Your task to perform on an android device: turn off improve location accuracy Image 0: 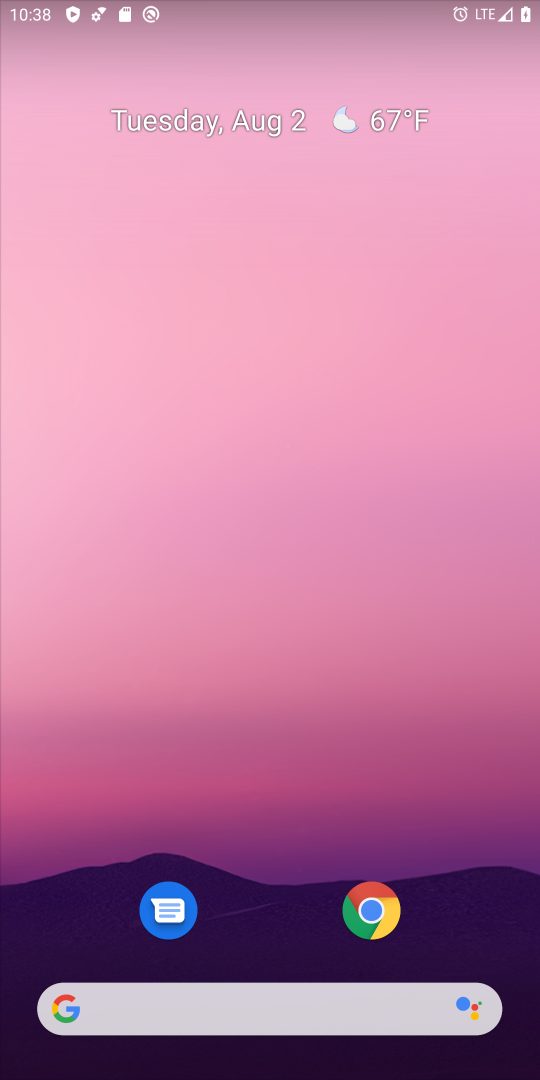
Step 0: drag from (248, 983) to (264, 336)
Your task to perform on an android device: turn off improve location accuracy Image 1: 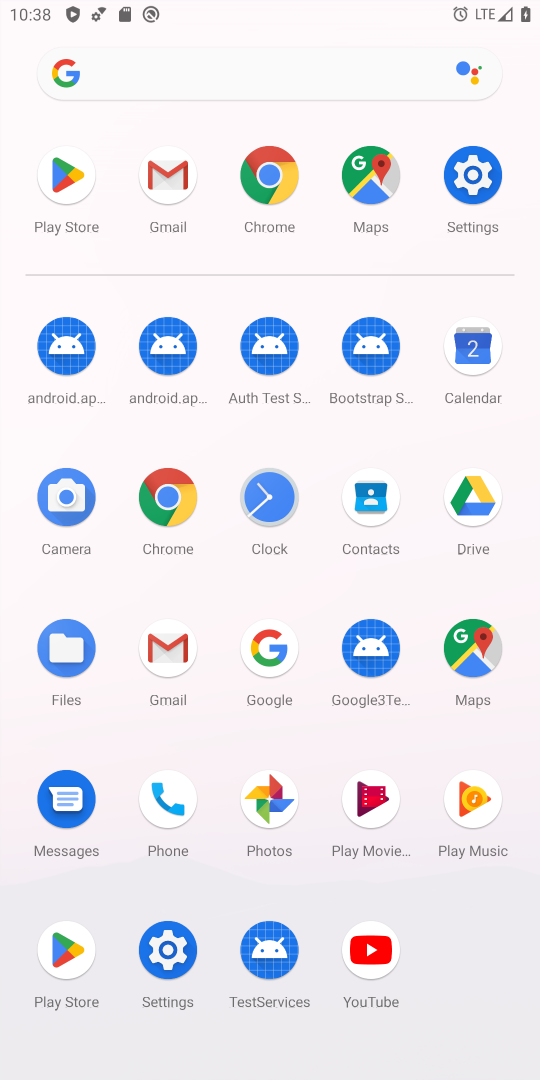
Step 1: click (464, 167)
Your task to perform on an android device: turn off improve location accuracy Image 2: 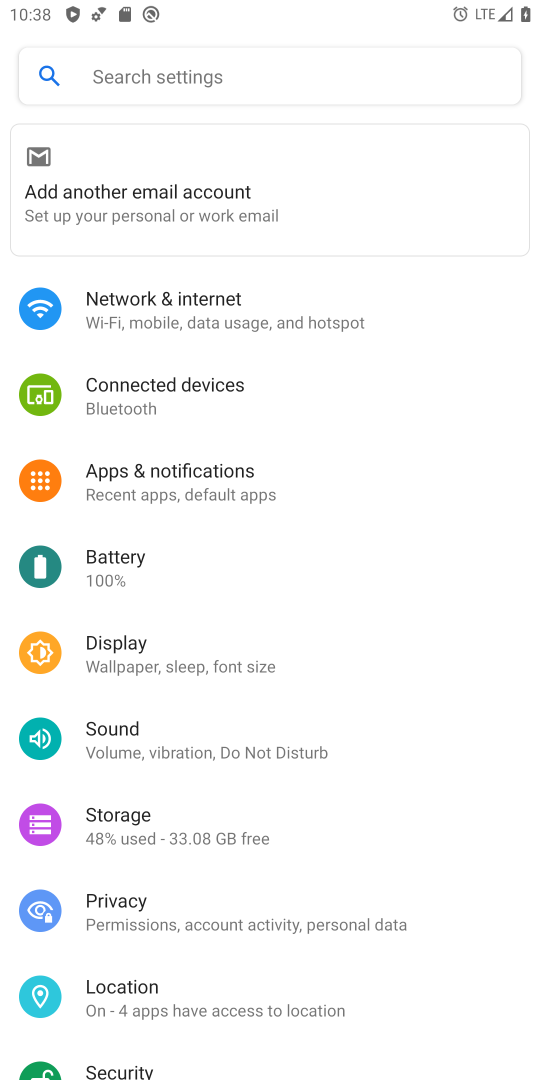
Step 2: click (254, 993)
Your task to perform on an android device: turn off improve location accuracy Image 3: 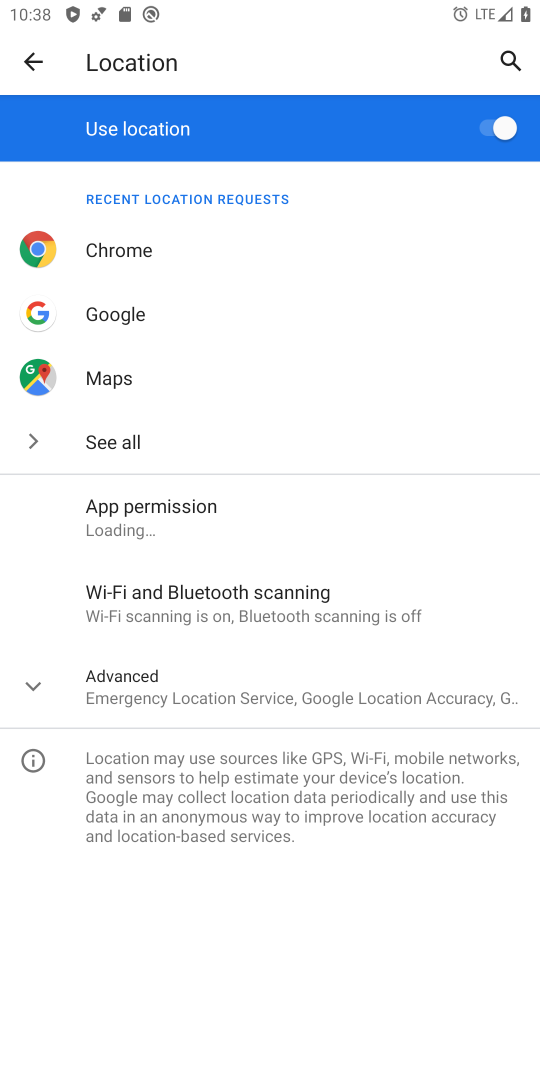
Step 3: click (209, 705)
Your task to perform on an android device: turn off improve location accuracy Image 4: 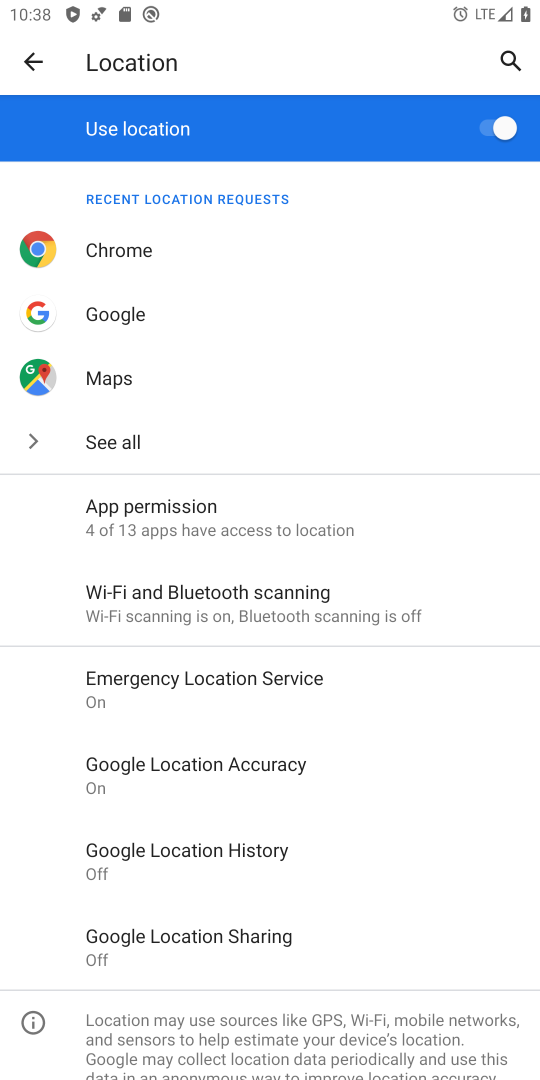
Step 4: click (269, 776)
Your task to perform on an android device: turn off improve location accuracy Image 5: 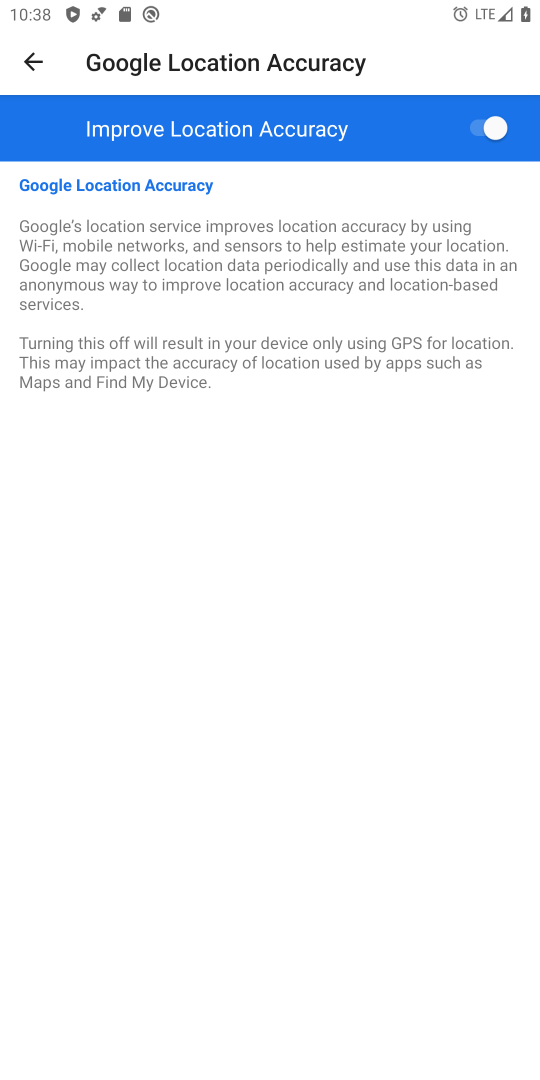
Step 5: click (485, 133)
Your task to perform on an android device: turn off improve location accuracy Image 6: 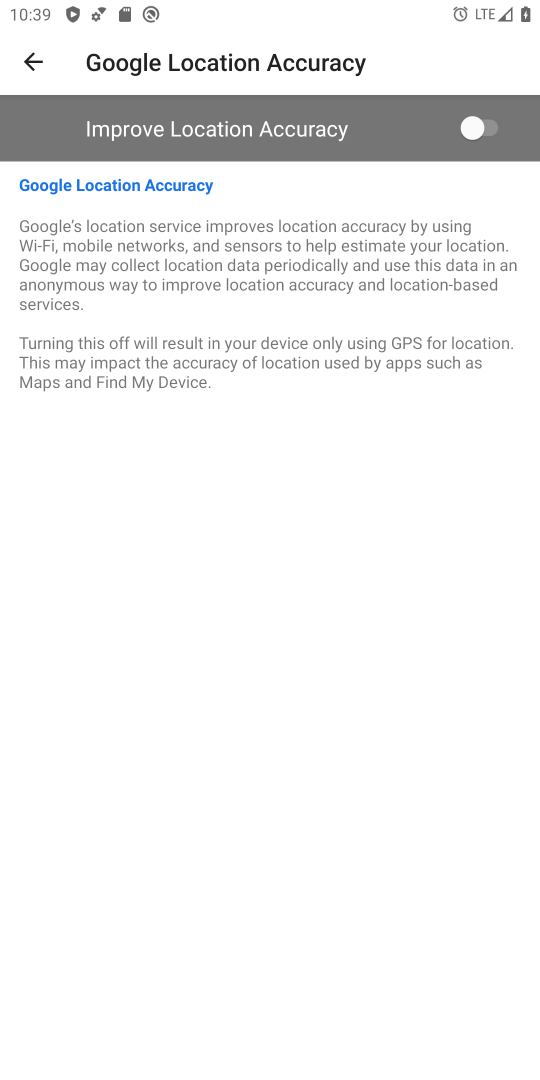
Step 6: task complete